Your task to perform on an android device: Is it going to rain today? Image 0: 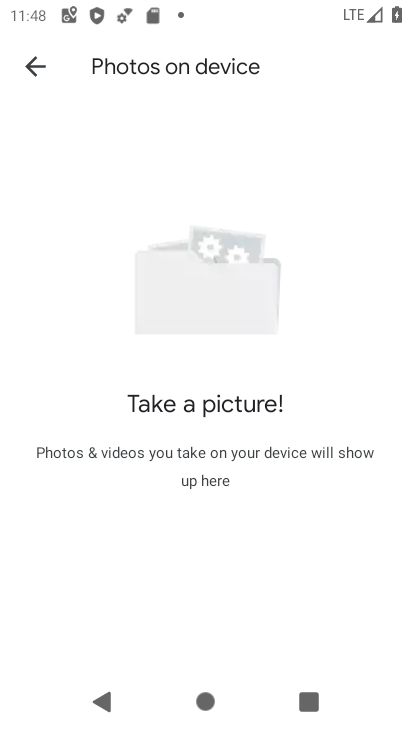
Step 0: press home button
Your task to perform on an android device: Is it going to rain today? Image 1: 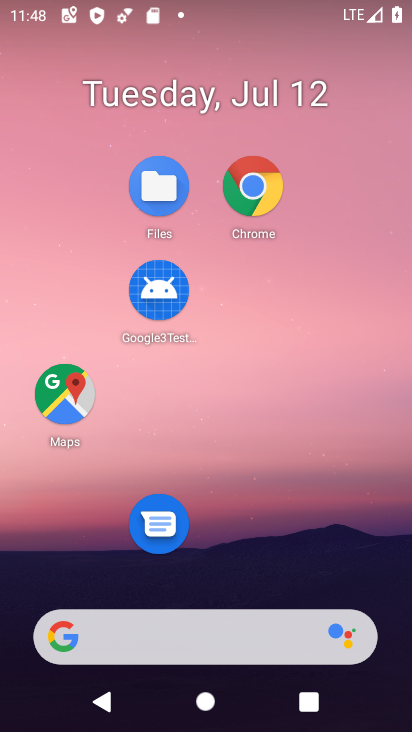
Step 1: click (204, 615)
Your task to perform on an android device: Is it going to rain today? Image 2: 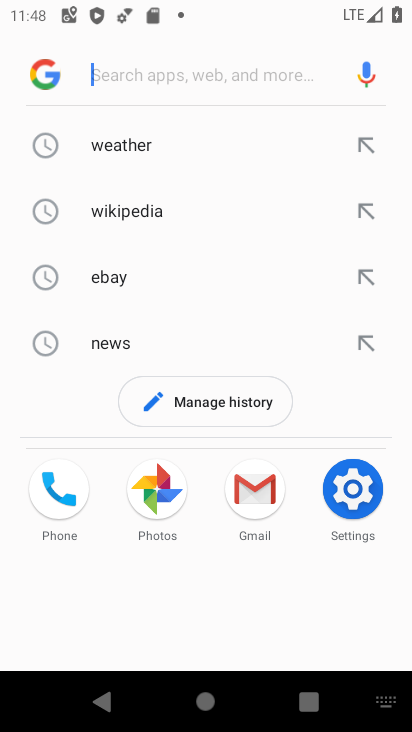
Step 2: click (101, 134)
Your task to perform on an android device: Is it going to rain today? Image 3: 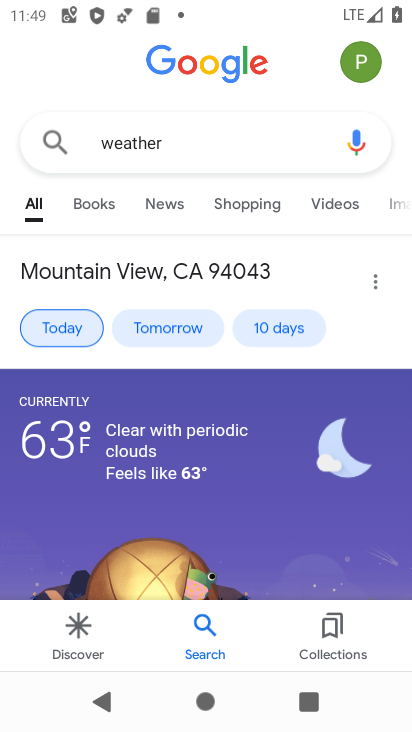
Step 3: click (83, 320)
Your task to perform on an android device: Is it going to rain today? Image 4: 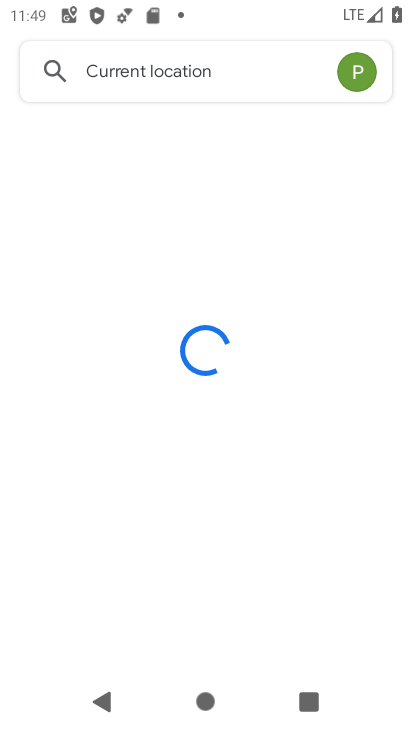
Step 4: task complete